Your task to perform on an android device: turn on javascript in the chrome app Image 0: 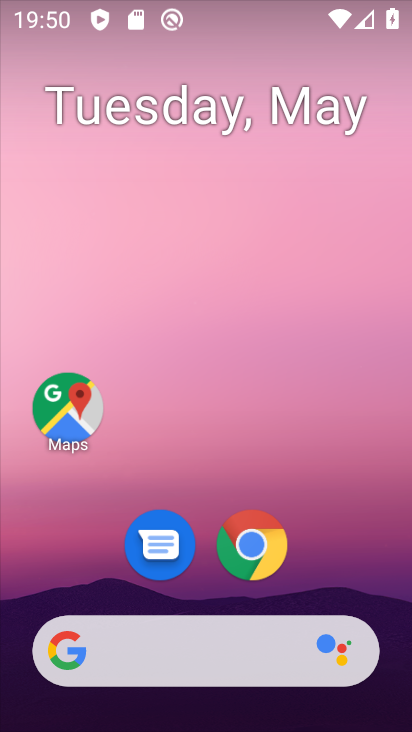
Step 0: click (249, 544)
Your task to perform on an android device: turn on javascript in the chrome app Image 1: 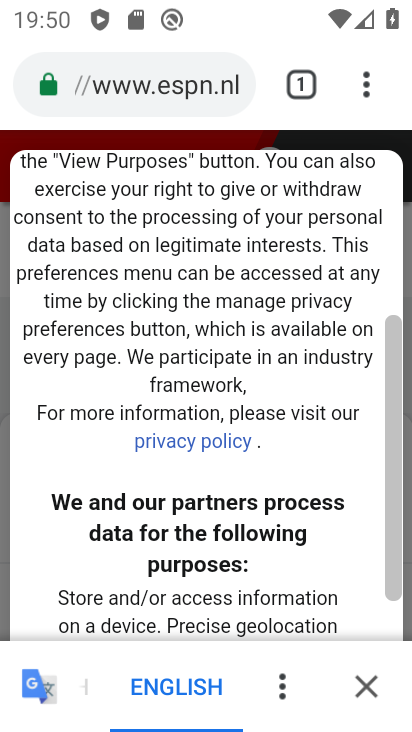
Step 1: click (375, 94)
Your task to perform on an android device: turn on javascript in the chrome app Image 2: 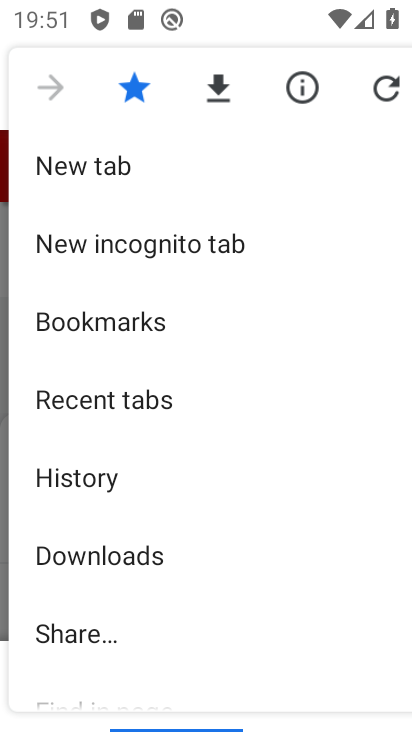
Step 2: drag from (224, 630) to (209, 297)
Your task to perform on an android device: turn on javascript in the chrome app Image 3: 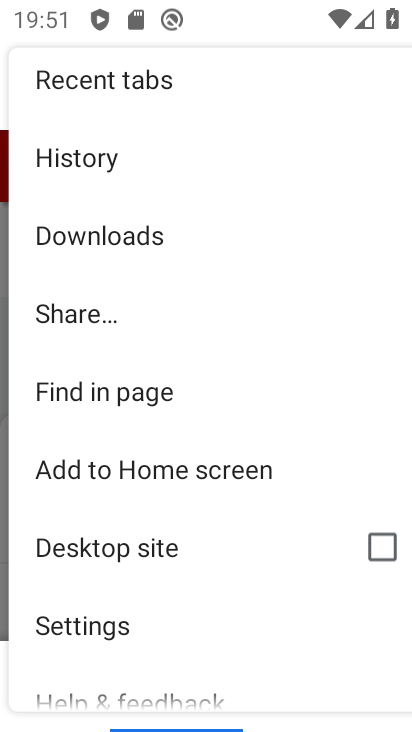
Step 3: click (158, 615)
Your task to perform on an android device: turn on javascript in the chrome app Image 4: 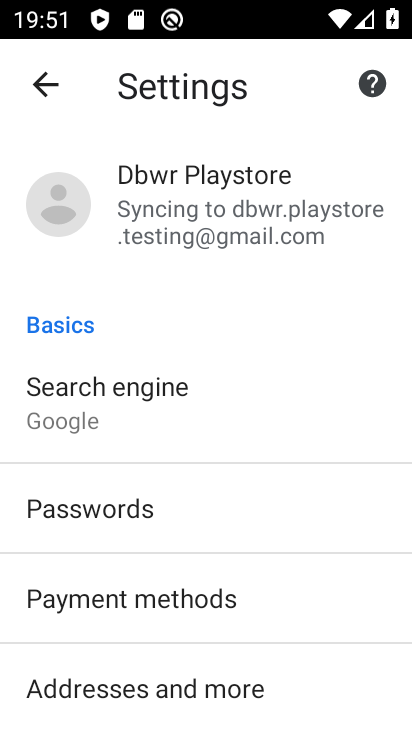
Step 4: drag from (190, 642) to (192, 302)
Your task to perform on an android device: turn on javascript in the chrome app Image 5: 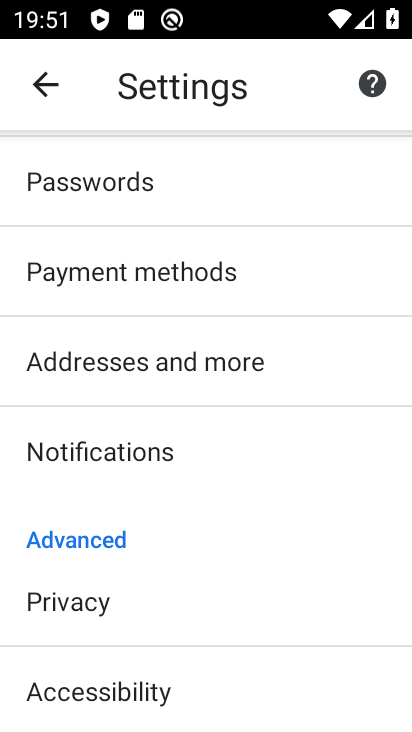
Step 5: drag from (207, 634) to (183, 347)
Your task to perform on an android device: turn on javascript in the chrome app Image 6: 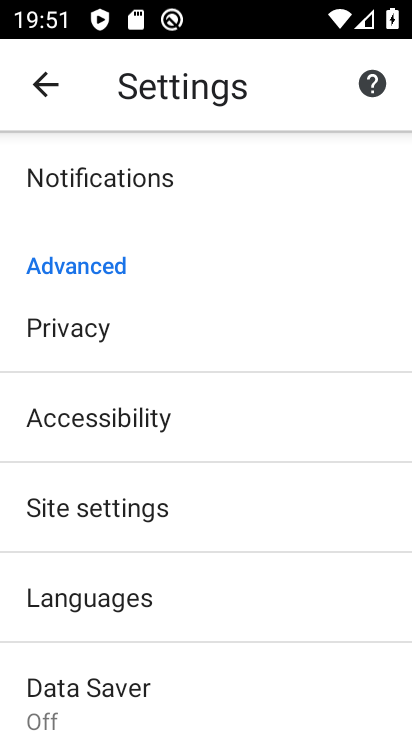
Step 6: click (147, 508)
Your task to perform on an android device: turn on javascript in the chrome app Image 7: 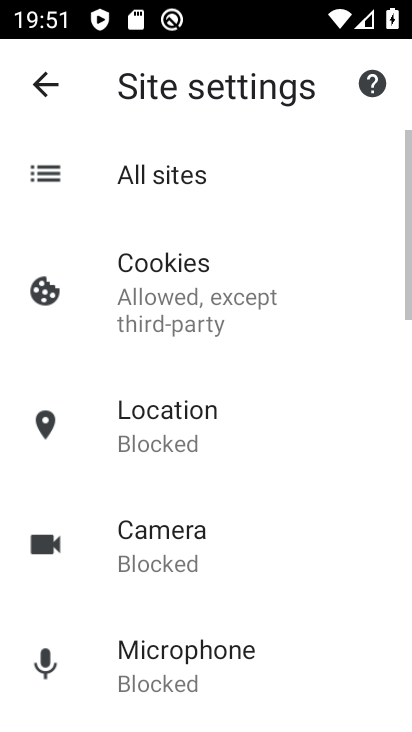
Step 7: drag from (250, 694) to (206, 203)
Your task to perform on an android device: turn on javascript in the chrome app Image 8: 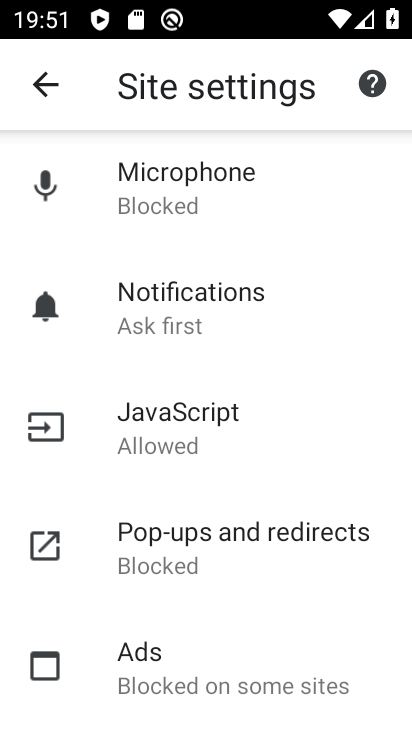
Step 8: click (186, 446)
Your task to perform on an android device: turn on javascript in the chrome app Image 9: 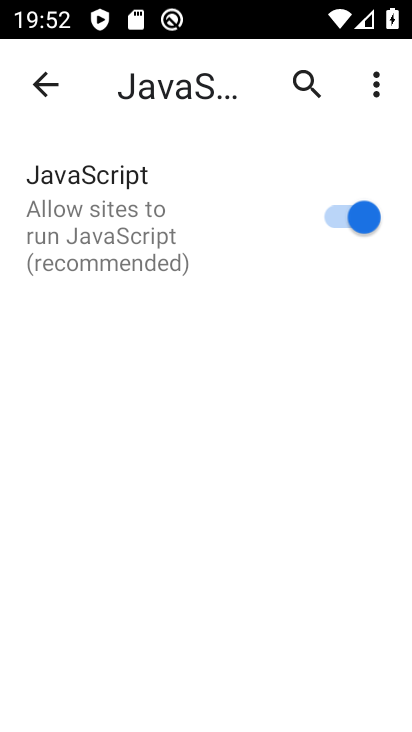
Step 9: task complete